Your task to perform on an android device: Open calendar and show me the second week of next month Image 0: 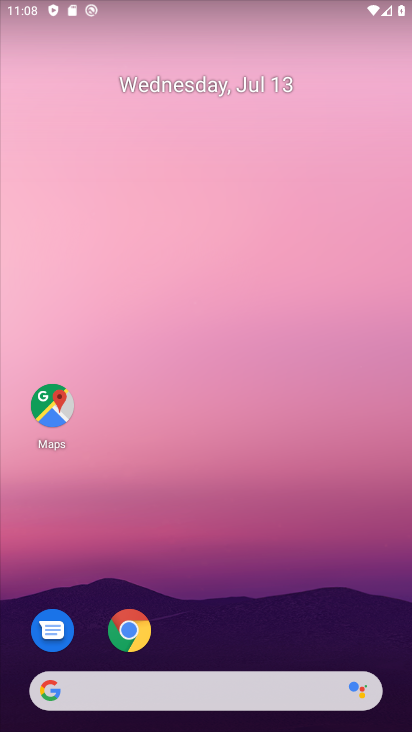
Step 0: drag from (336, 623) to (378, 149)
Your task to perform on an android device: Open calendar and show me the second week of next month Image 1: 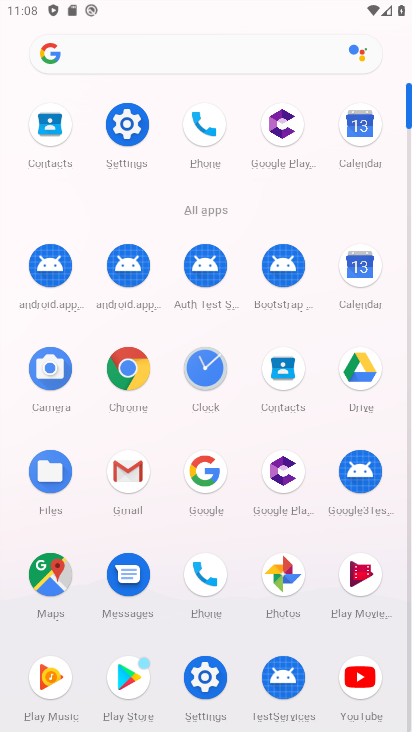
Step 1: click (349, 296)
Your task to perform on an android device: Open calendar and show me the second week of next month Image 2: 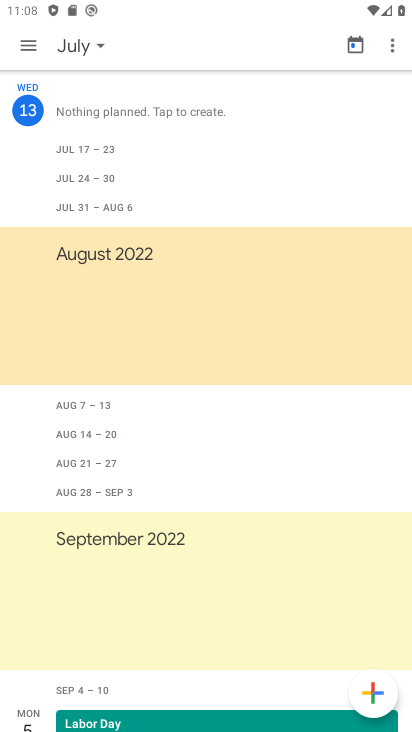
Step 2: click (102, 47)
Your task to perform on an android device: Open calendar and show me the second week of next month Image 3: 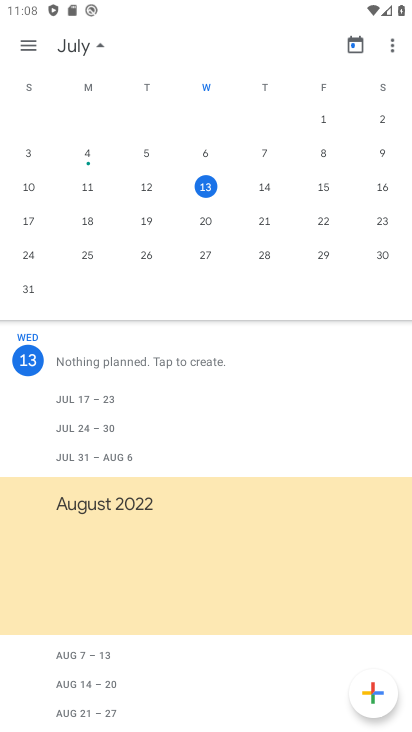
Step 3: drag from (385, 130) to (15, 109)
Your task to perform on an android device: Open calendar and show me the second week of next month Image 4: 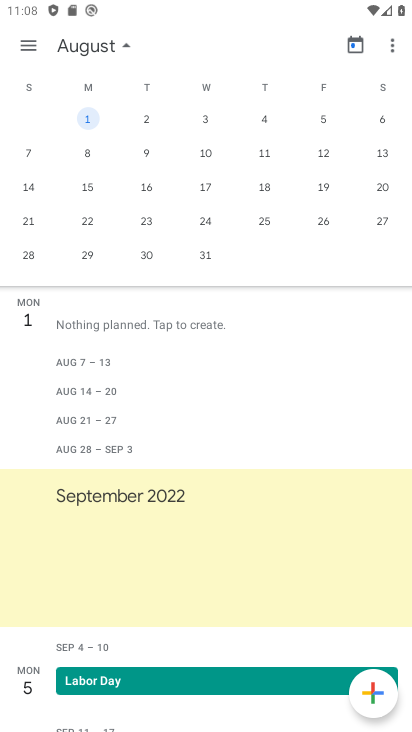
Step 4: click (93, 160)
Your task to perform on an android device: Open calendar and show me the second week of next month Image 5: 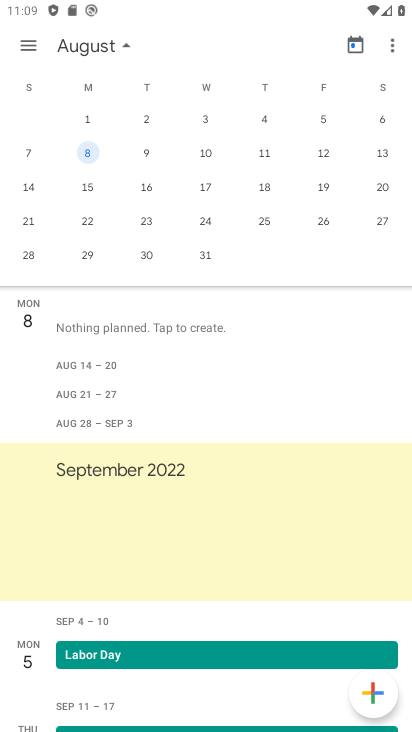
Step 5: task complete